Your task to perform on an android device: Open calendar and show me the first week of next month Image 0: 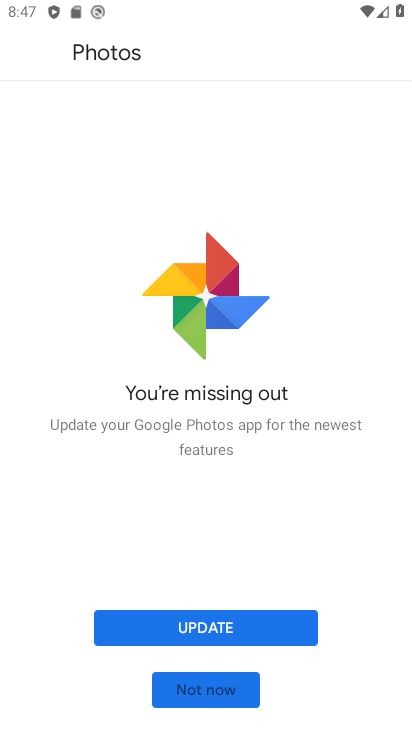
Step 0: press home button
Your task to perform on an android device: Open calendar and show me the first week of next month Image 1: 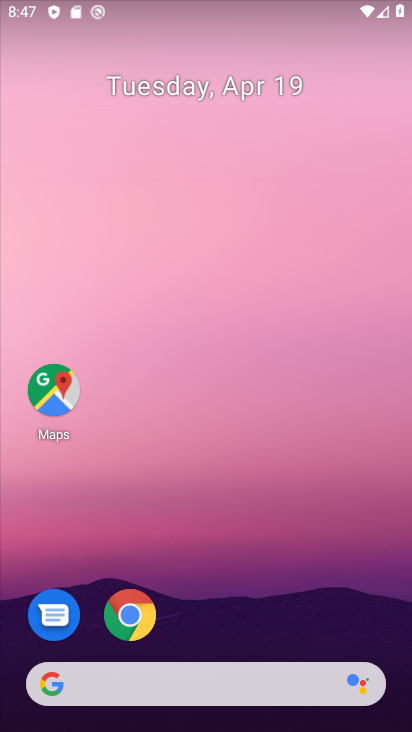
Step 1: click (231, 99)
Your task to perform on an android device: Open calendar and show me the first week of next month Image 2: 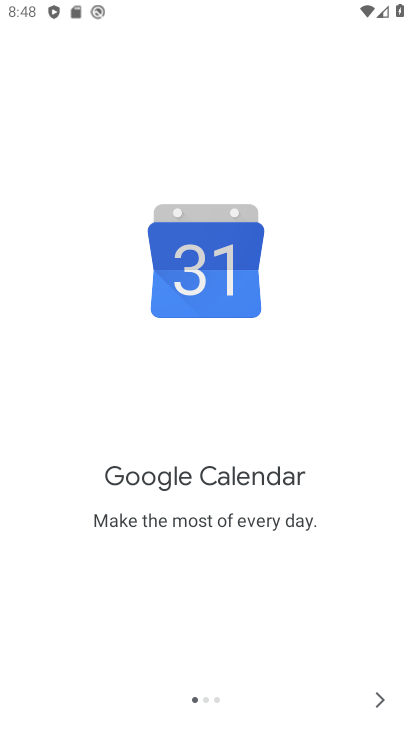
Step 2: click (377, 689)
Your task to perform on an android device: Open calendar and show me the first week of next month Image 3: 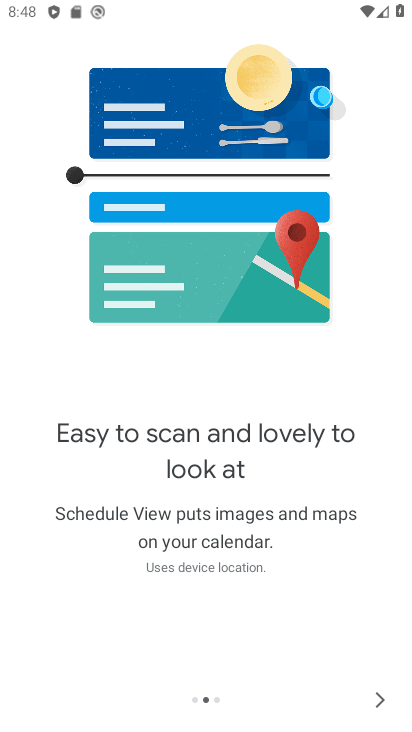
Step 3: click (377, 689)
Your task to perform on an android device: Open calendar and show me the first week of next month Image 4: 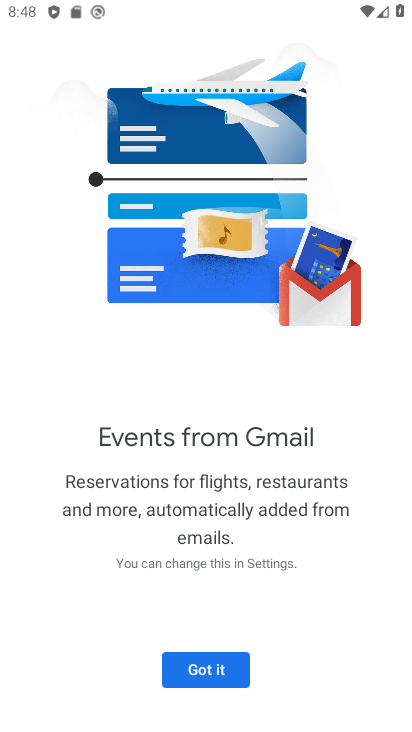
Step 4: click (167, 661)
Your task to perform on an android device: Open calendar and show me the first week of next month Image 5: 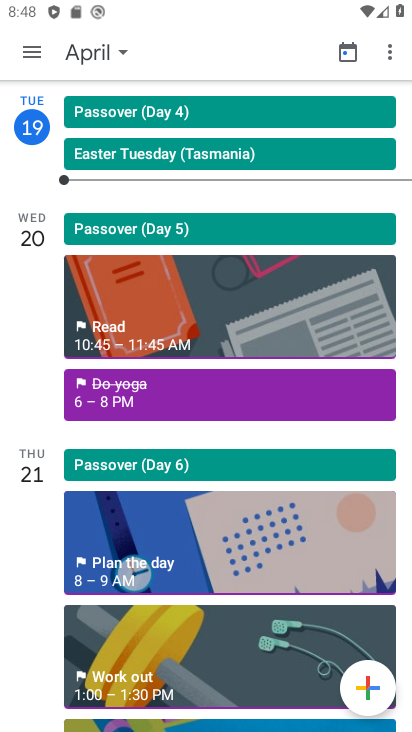
Step 5: click (92, 49)
Your task to perform on an android device: Open calendar and show me the first week of next month Image 6: 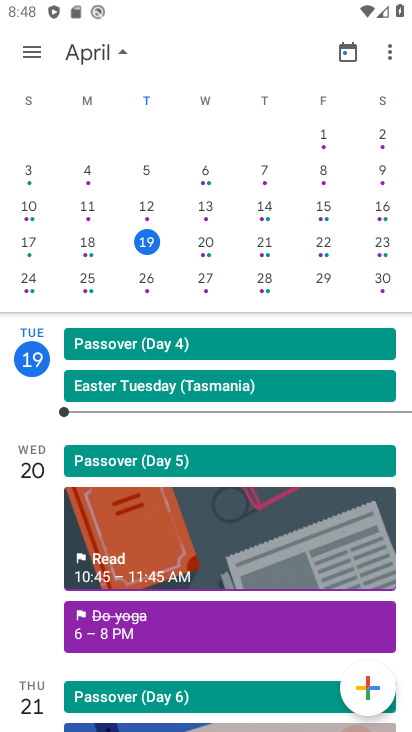
Step 6: drag from (399, 243) to (28, 214)
Your task to perform on an android device: Open calendar and show me the first week of next month Image 7: 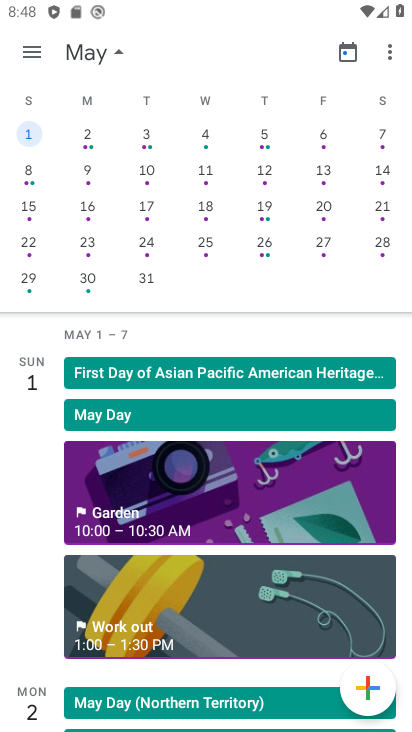
Step 7: click (273, 128)
Your task to perform on an android device: Open calendar and show me the first week of next month Image 8: 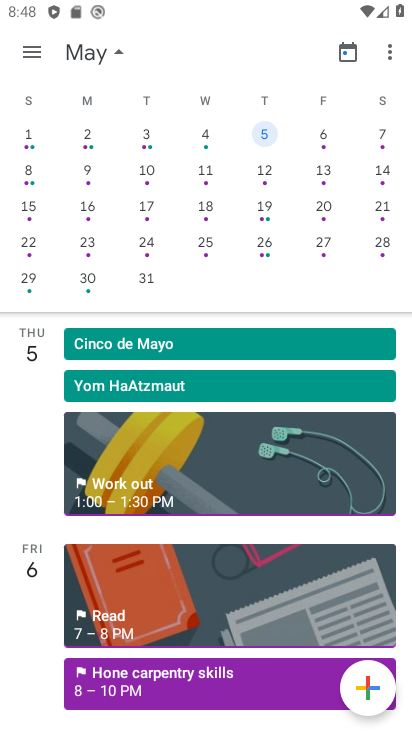
Step 8: task complete